Your task to perform on an android device: toggle sleep mode Image 0: 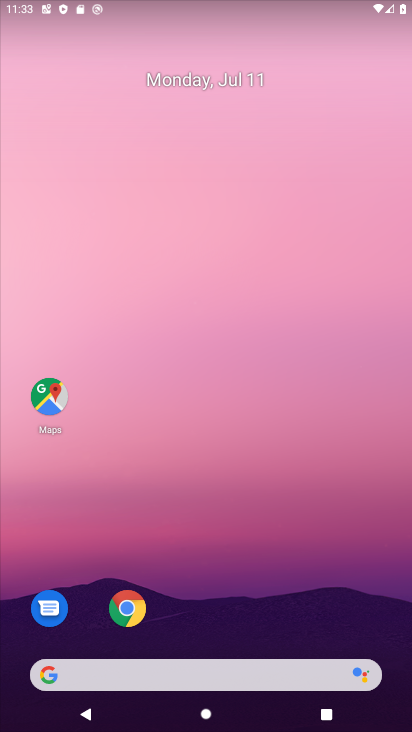
Step 0: drag from (301, 10) to (315, 631)
Your task to perform on an android device: toggle sleep mode Image 1: 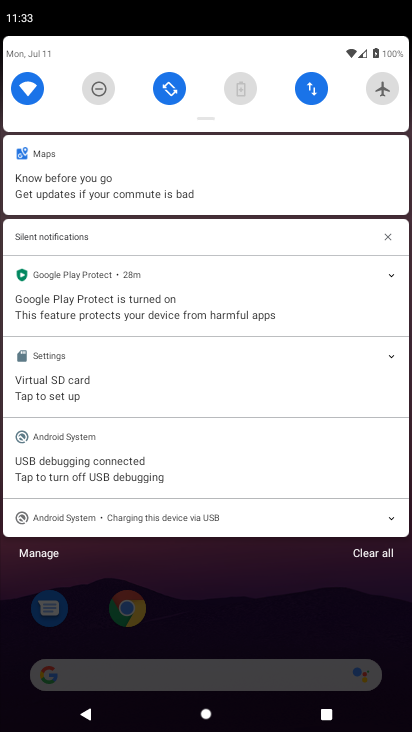
Step 1: drag from (223, 41) to (202, 380)
Your task to perform on an android device: toggle sleep mode Image 2: 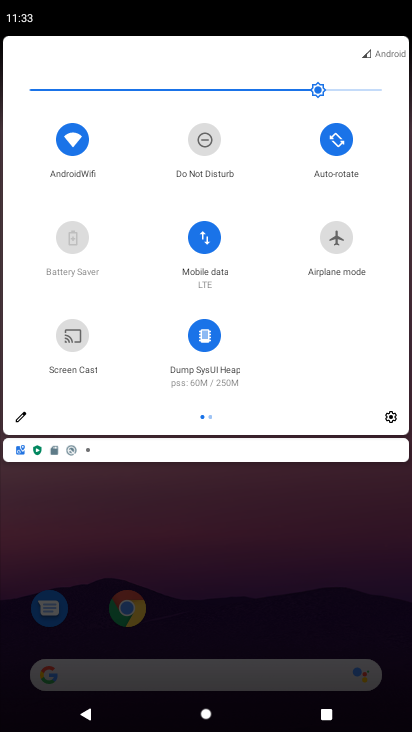
Step 2: click (386, 416)
Your task to perform on an android device: toggle sleep mode Image 3: 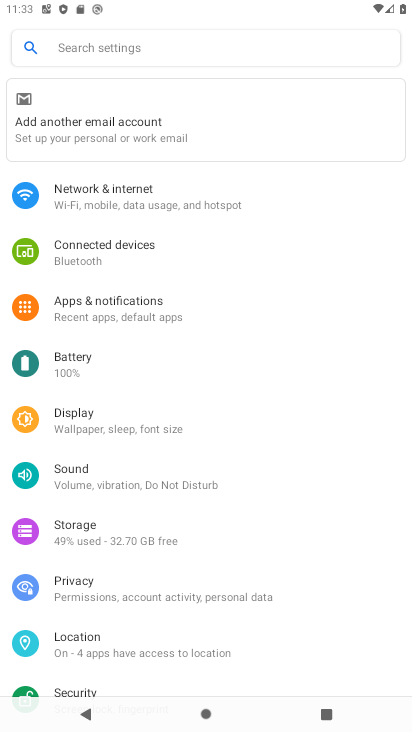
Step 3: task complete